Your task to perform on an android device: Search for "razer naga" on costco.com, select the first entry, and add it to the cart. Image 0: 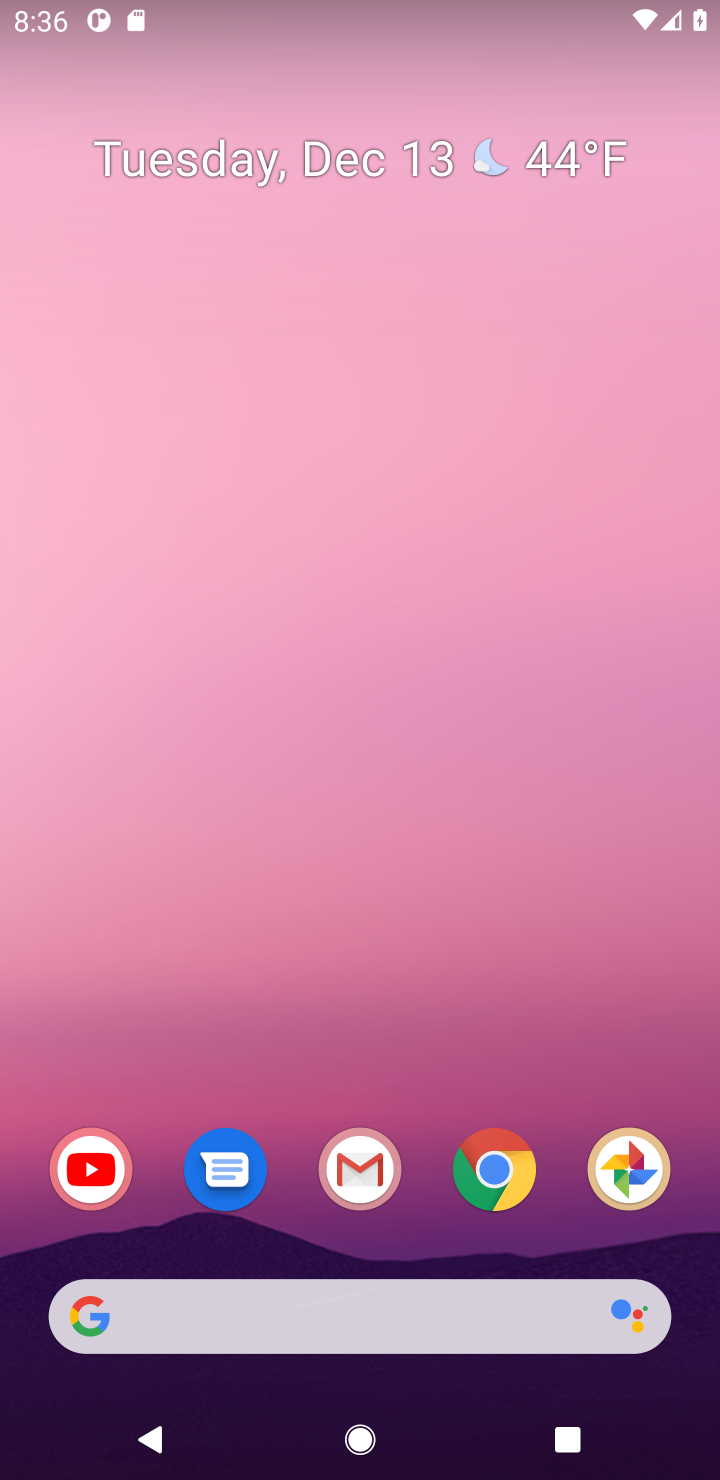
Step 0: click (505, 1193)
Your task to perform on an android device: Search for "razer naga" on costco.com, select the first entry, and add it to the cart. Image 1: 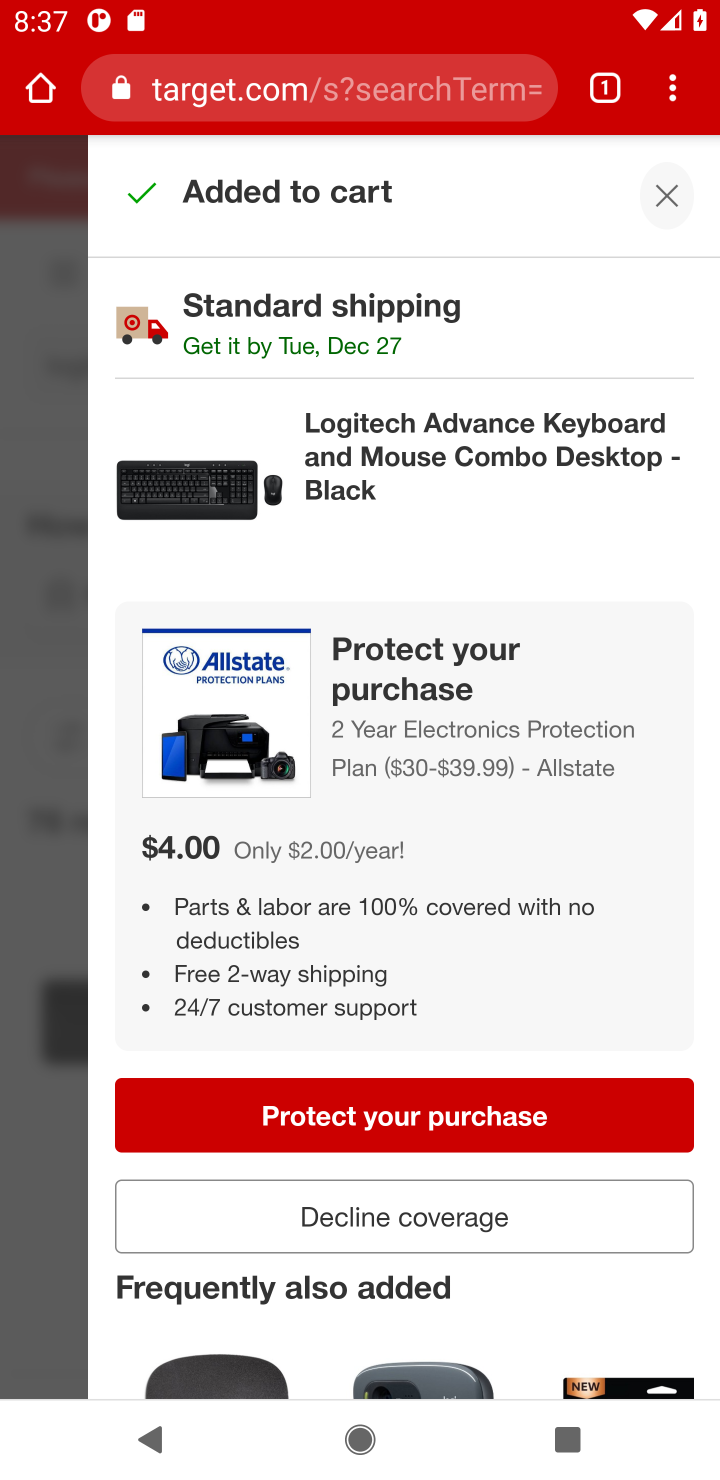
Step 1: task complete